Your task to perform on an android device: turn off airplane mode Image 0: 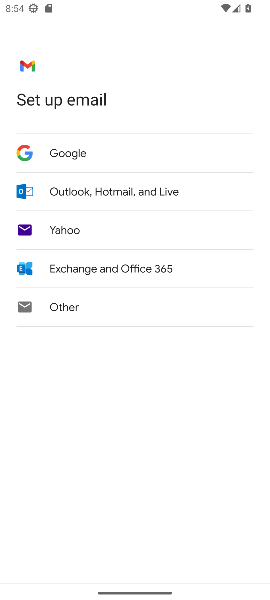
Step 0: press home button
Your task to perform on an android device: turn off airplane mode Image 1: 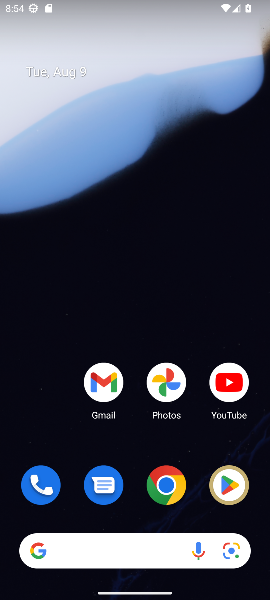
Step 1: task complete